Your task to perform on an android device: all mails in gmail Image 0: 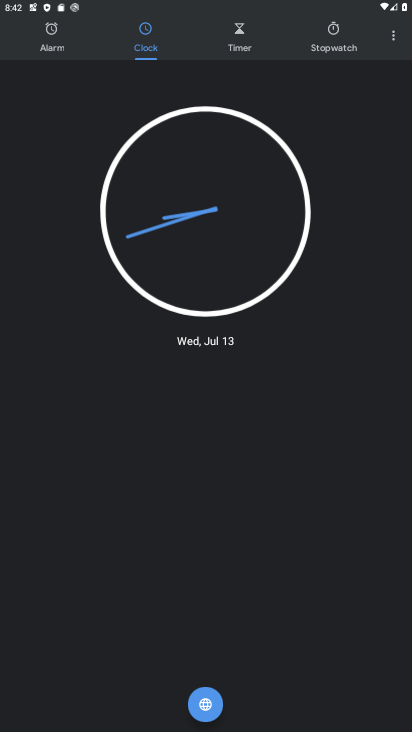
Step 0: press home button
Your task to perform on an android device: all mails in gmail Image 1: 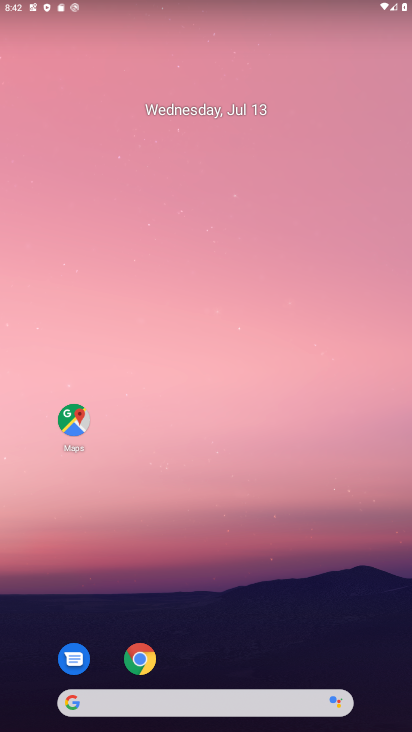
Step 1: drag from (26, 617) to (220, 45)
Your task to perform on an android device: all mails in gmail Image 2: 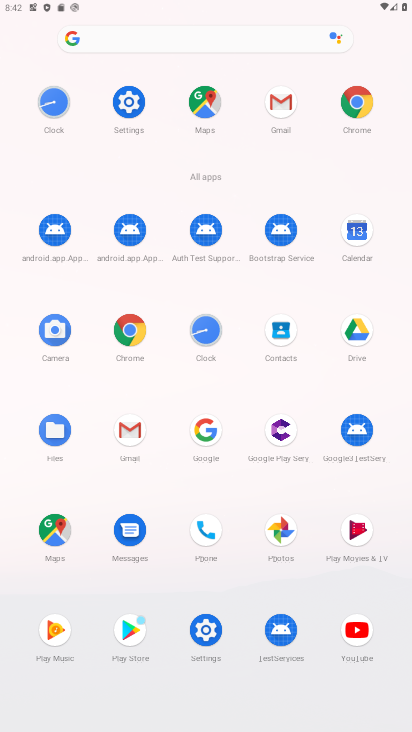
Step 2: click (271, 105)
Your task to perform on an android device: all mails in gmail Image 3: 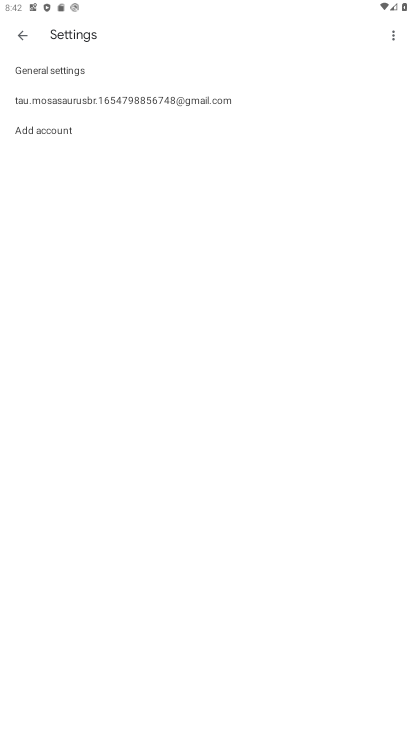
Step 3: click (25, 35)
Your task to perform on an android device: all mails in gmail Image 4: 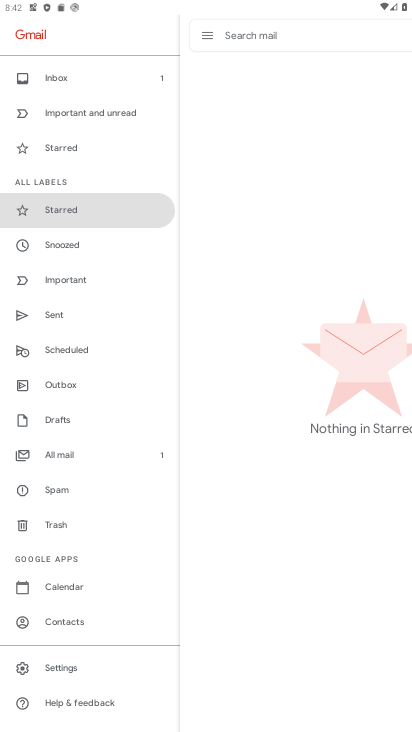
Step 4: click (119, 76)
Your task to perform on an android device: all mails in gmail Image 5: 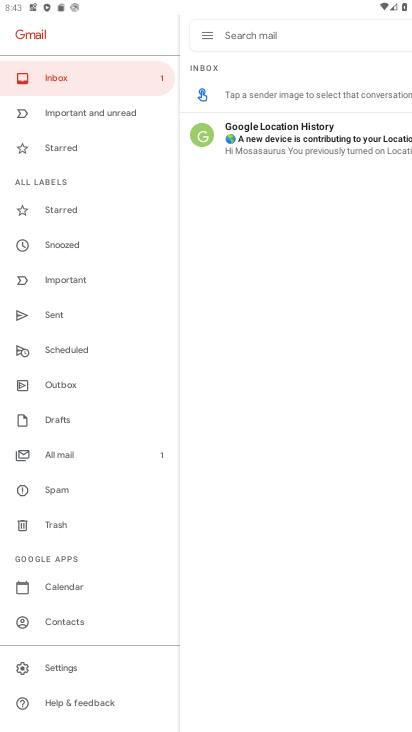
Step 5: task complete